Your task to perform on an android device: see creations saved in the google photos Image 0: 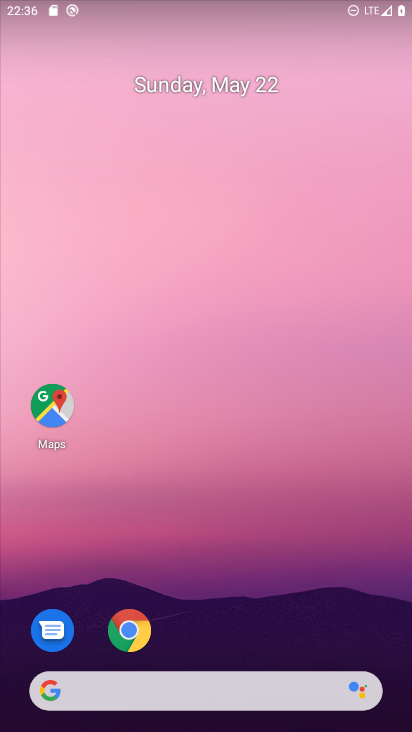
Step 0: press home button
Your task to perform on an android device: see creations saved in the google photos Image 1: 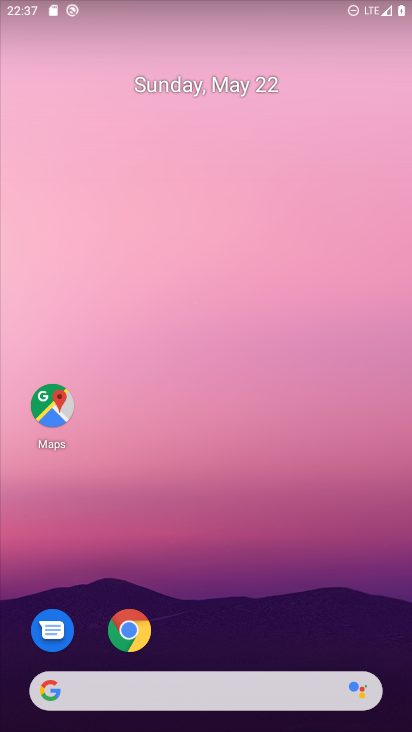
Step 1: drag from (153, 692) to (317, 210)
Your task to perform on an android device: see creations saved in the google photos Image 2: 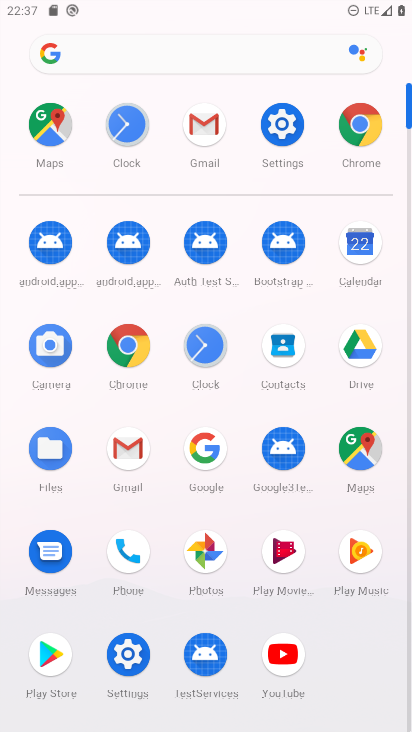
Step 2: click (212, 562)
Your task to perform on an android device: see creations saved in the google photos Image 3: 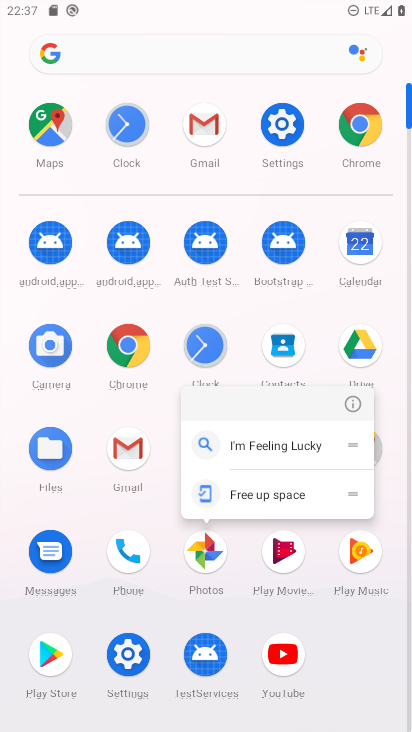
Step 3: click (206, 560)
Your task to perform on an android device: see creations saved in the google photos Image 4: 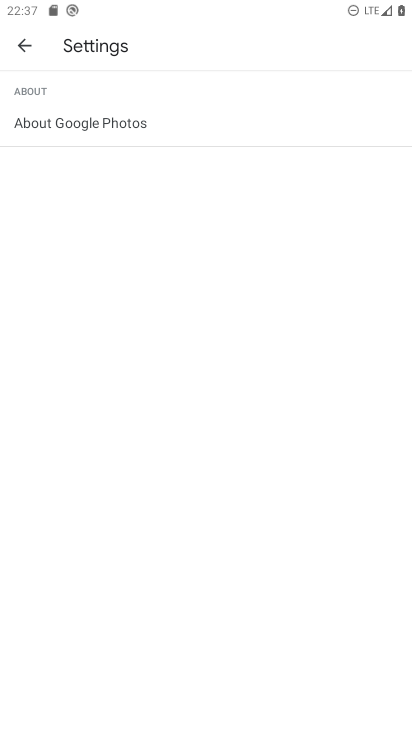
Step 4: click (27, 50)
Your task to perform on an android device: see creations saved in the google photos Image 5: 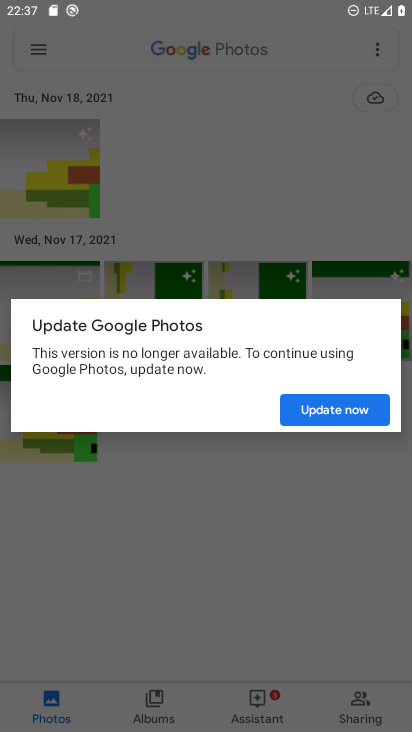
Step 5: click (307, 410)
Your task to perform on an android device: see creations saved in the google photos Image 6: 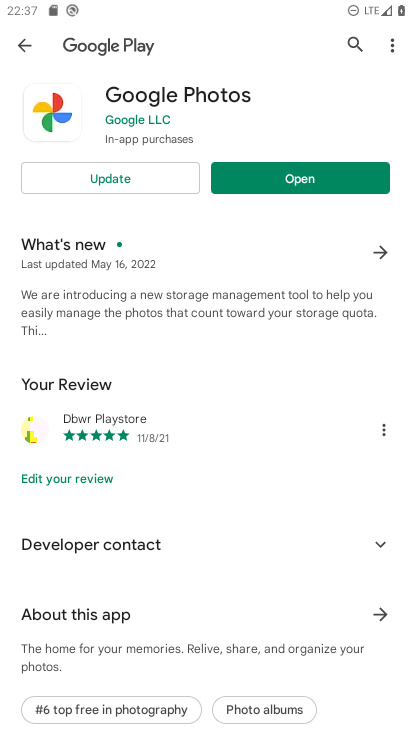
Step 6: click (277, 180)
Your task to perform on an android device: see creations saved in the google photos Image 7: 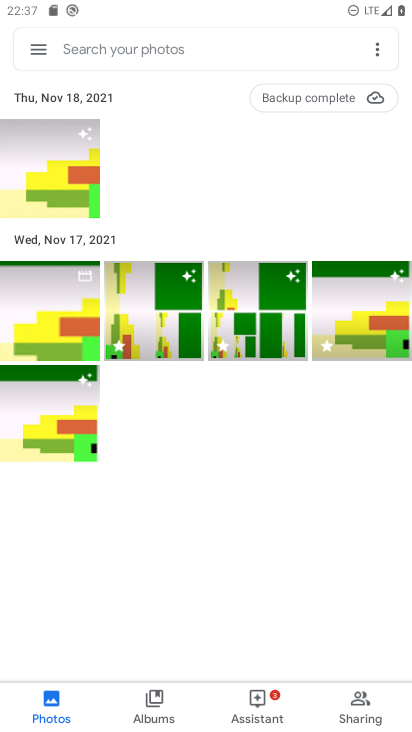
Step 7: click (158, 709)
Your task to perform on an android device: see creations saved in the google photos Image 8: 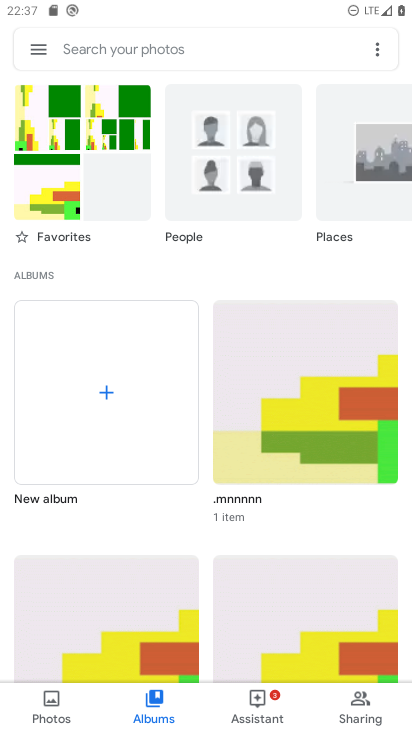
Step 8: click (182, 47)
Your task to perform on an android device: see creations saved in the google photos Image 9: 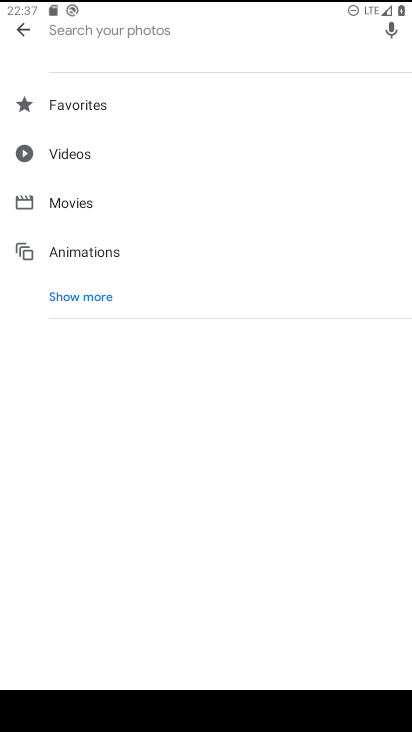
Step 9: click (92, 296)
Your task to perform on an android device: see creations saved in the google photos Image 10: 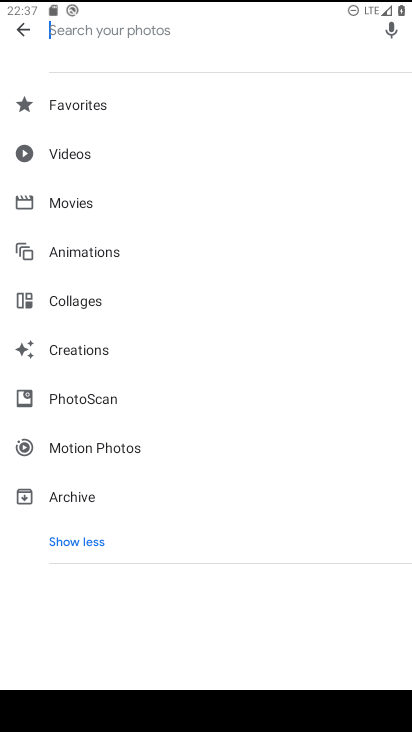
Step 10: click (78, 345)
Your task to perform on an android device: see creations saved in the google photos Image 11: 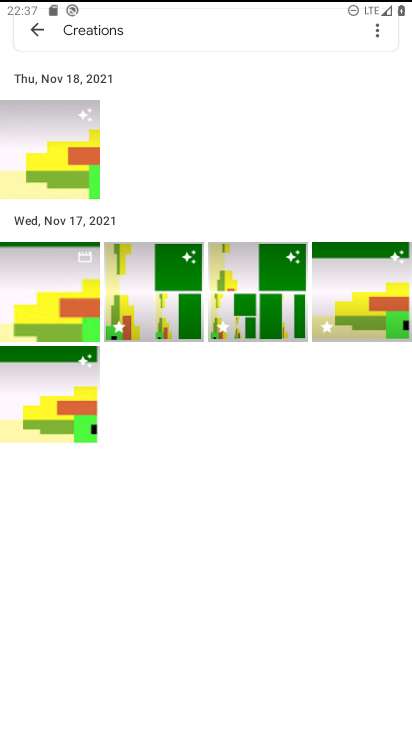
Step 11: task complete